Your task to perform on an android device: add a label to a message in the gmail app Image 0: 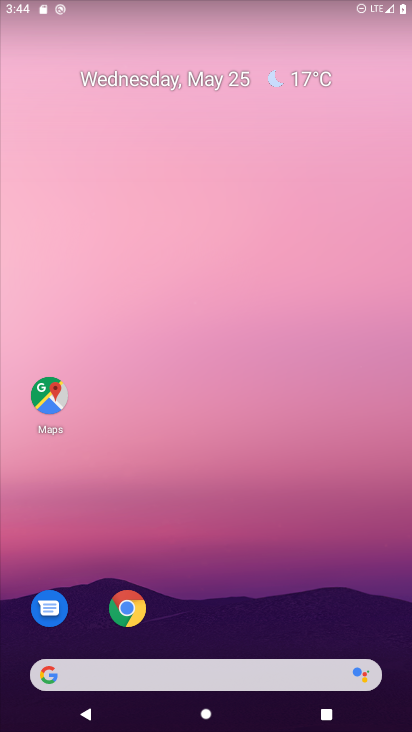
Step 0: drag from (370, 631) to (339, 36)
Your task to perform on an android device: add a label to a message in the gmail app Image 1: 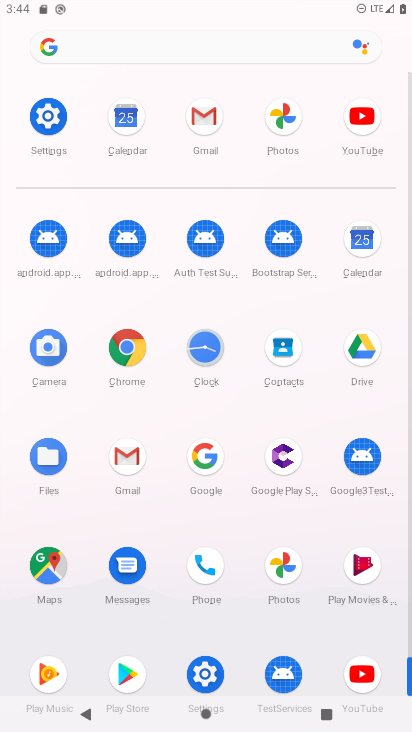
Step 1: click (128, 452)
Your task to perform on an android device: add a label to a message in the gmail app Image 2: 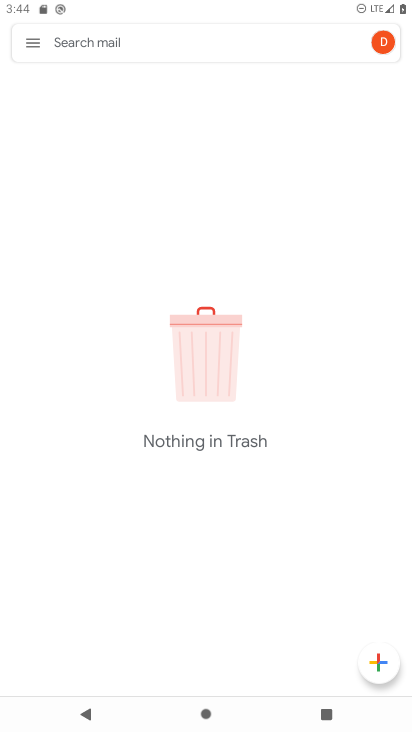
Step 2: click (30, 41)
Your task to perform on an android device: add a label to a message in the gmail app Image 3: 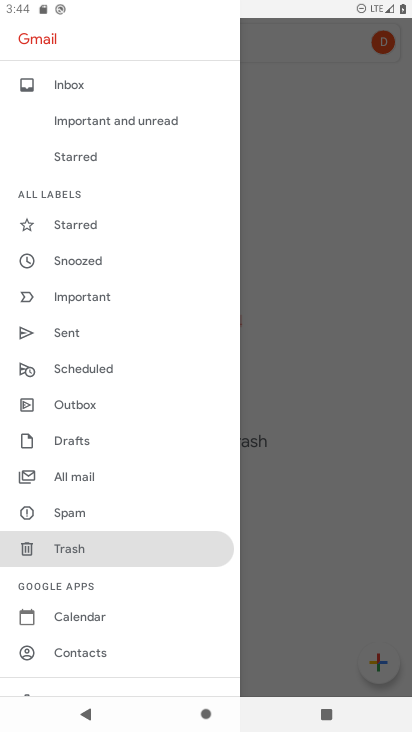
Step 3: click (83, 470)
Your task to perform on an android device: add a label to a message in the gmail app Image 4: 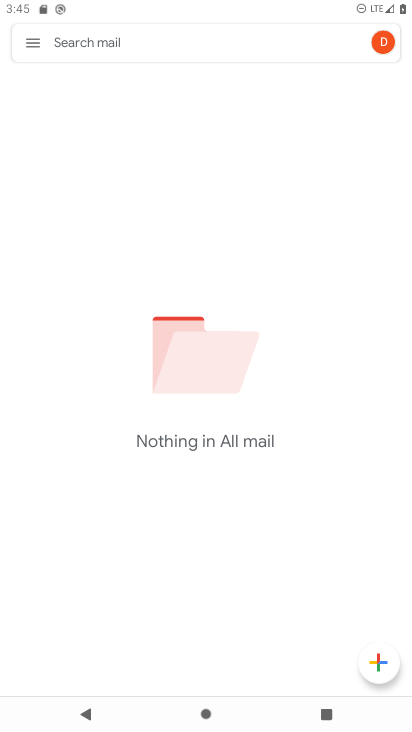
Step 4: task complete